Your task to perform on an android device: Search for sushi restaurants on Maps Image 0: 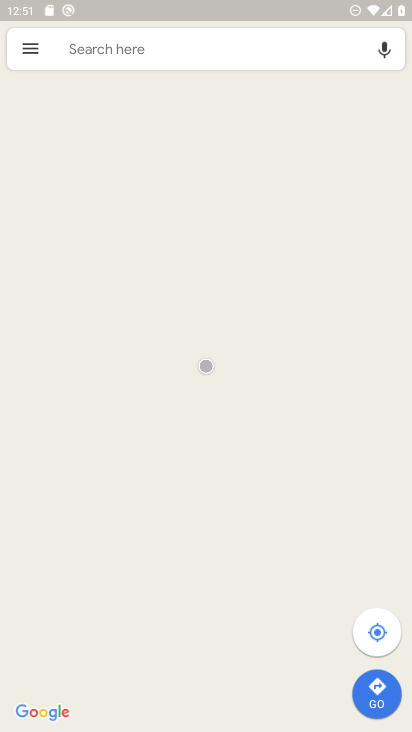
Step 0: click (232, 39)
Your task to perform on an android device: Search for sushi restaurants on Maps Image 1: 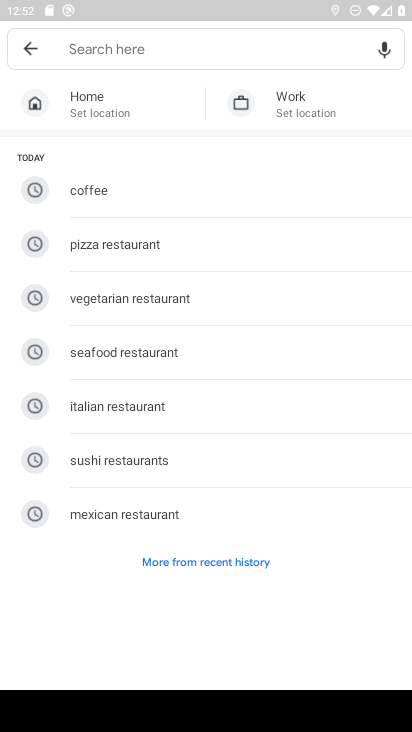
Step 1: type "sushi restaurants"
Your task to perform on an android device: Search for sushi restaurants on Maps Image 2: 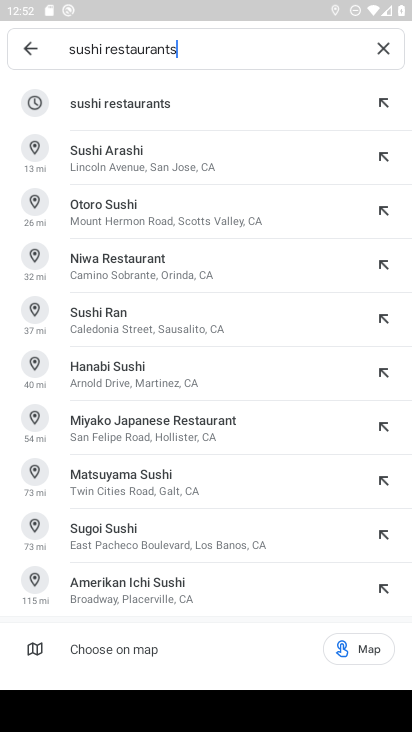
Step 2: click (180, 98)
Your task to perform on an android device: Search for sushi restaurants on Maps Image 3: 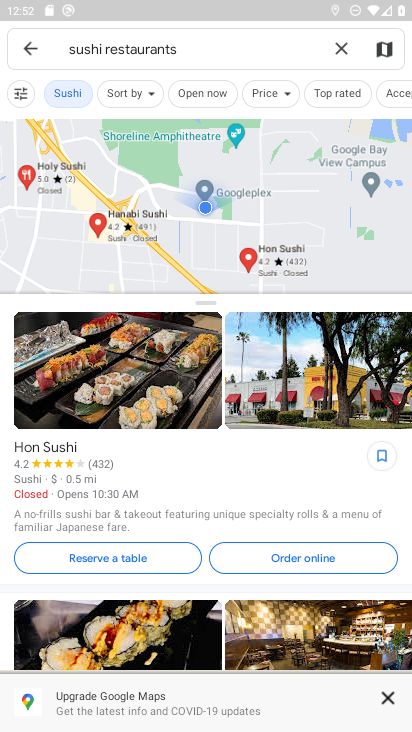
Step 3: task complete